Your task to perform on an android device: turn pop-ups off in chrome Image 0: 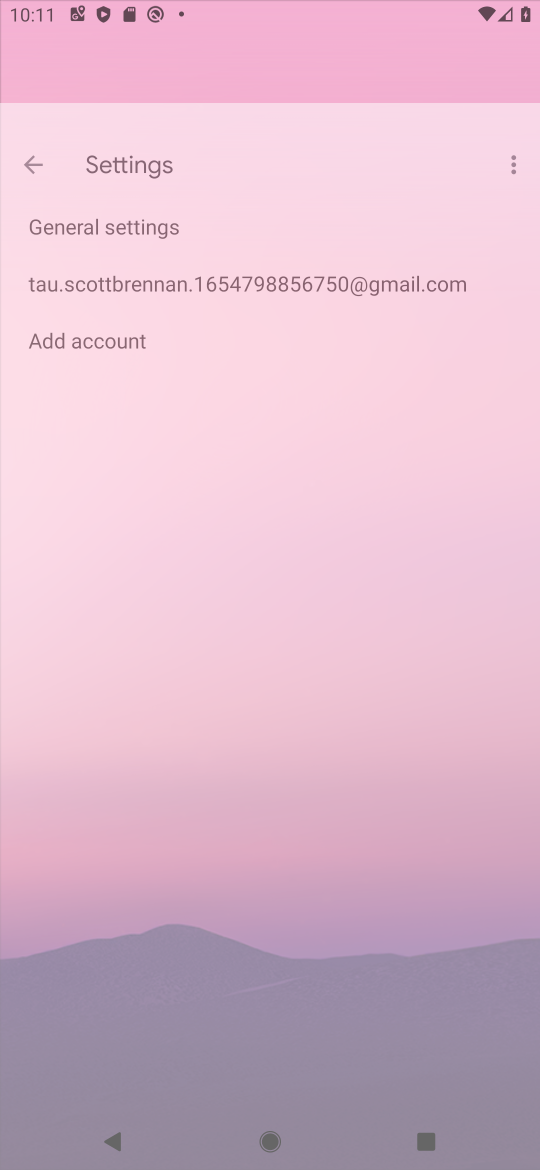
Step 0: press home button
Your task to perform on an android device: turn pop-ups off in chrome Image 1: 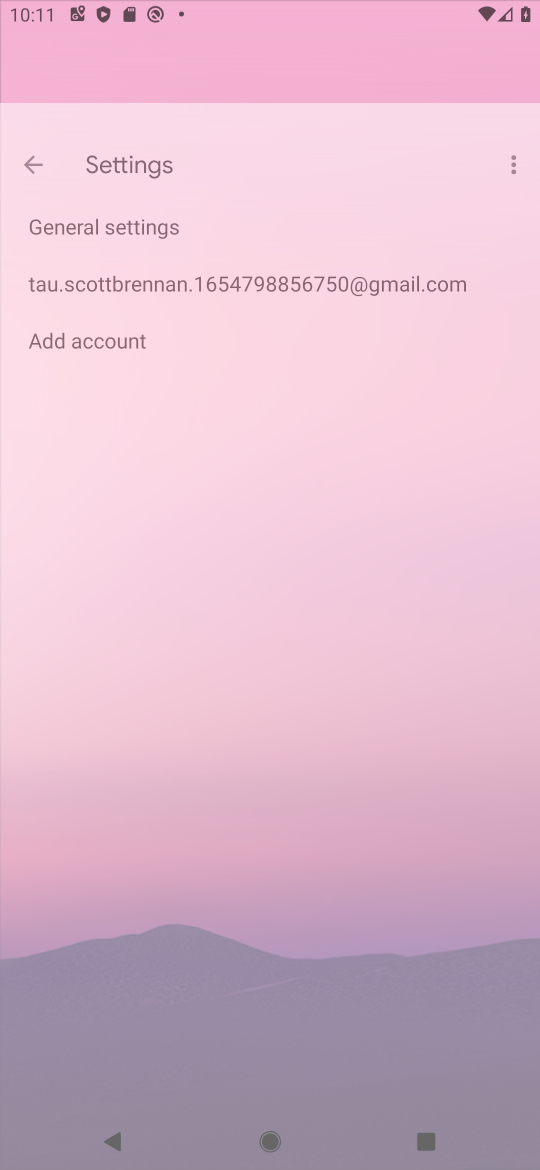
Step 1: click (307, 153)
Your task to perform on an android device: turn pop-ups off in chrome Image 2: 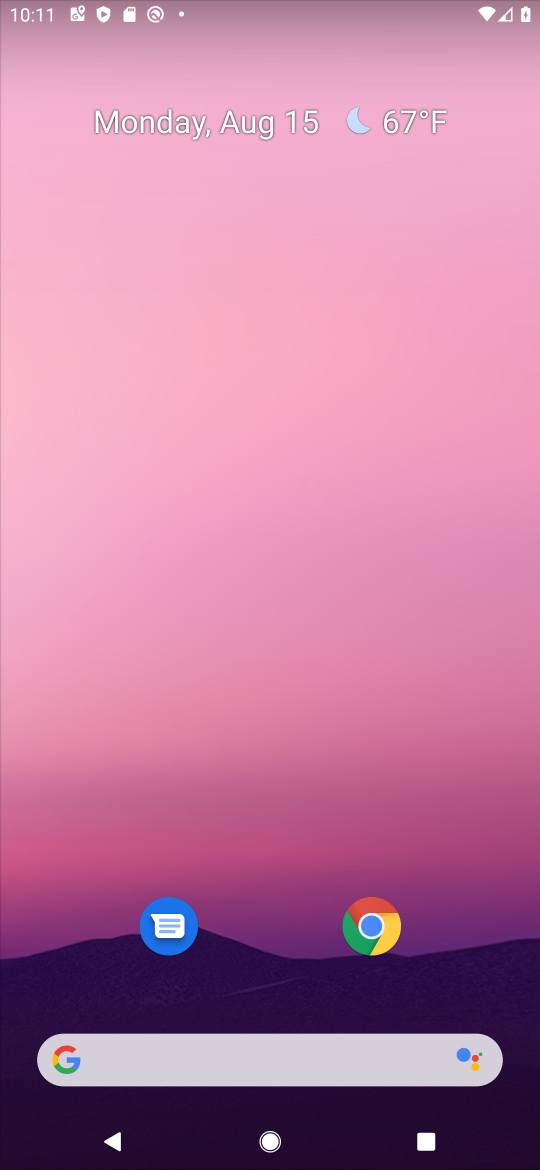
Step 2: click (373, 920)
Your task to perform on an android device: turn pop-ups off in chrome Image 3: 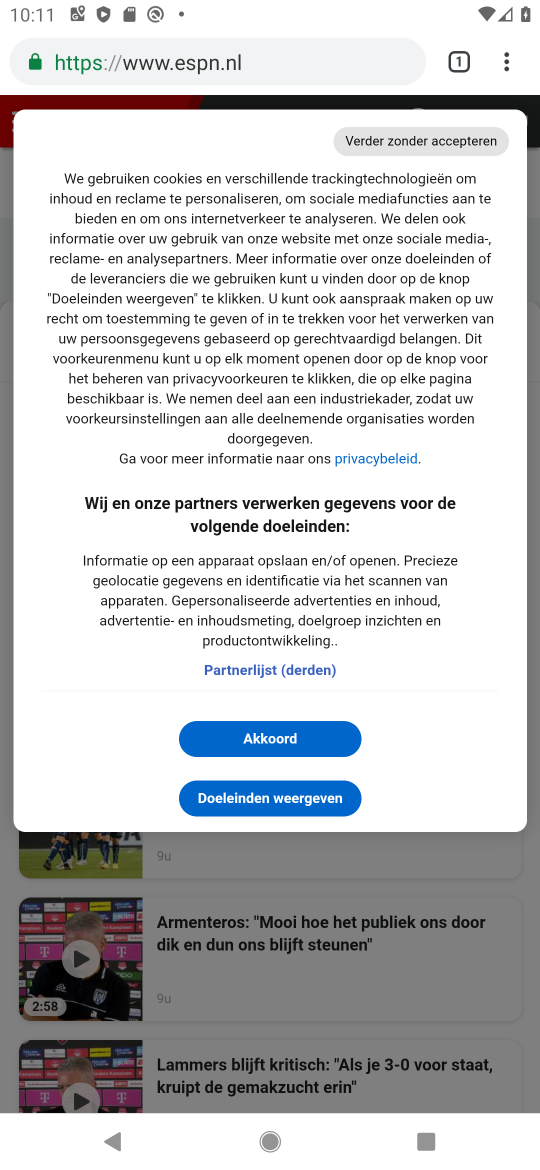
Step 3: drag from (510, 61) to (285, 815)
Your task to perform on an android device: turn pop-ups off in chrome Image 4: 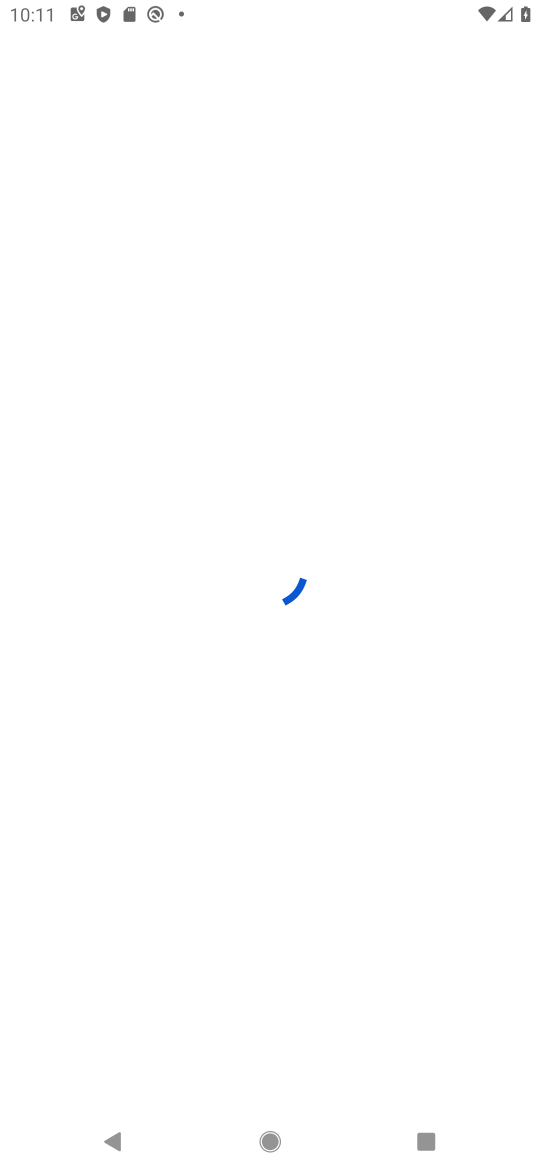
Step 4: press back button
Your task to perform on an android device: turn pop-ups off in chrome Image 5: 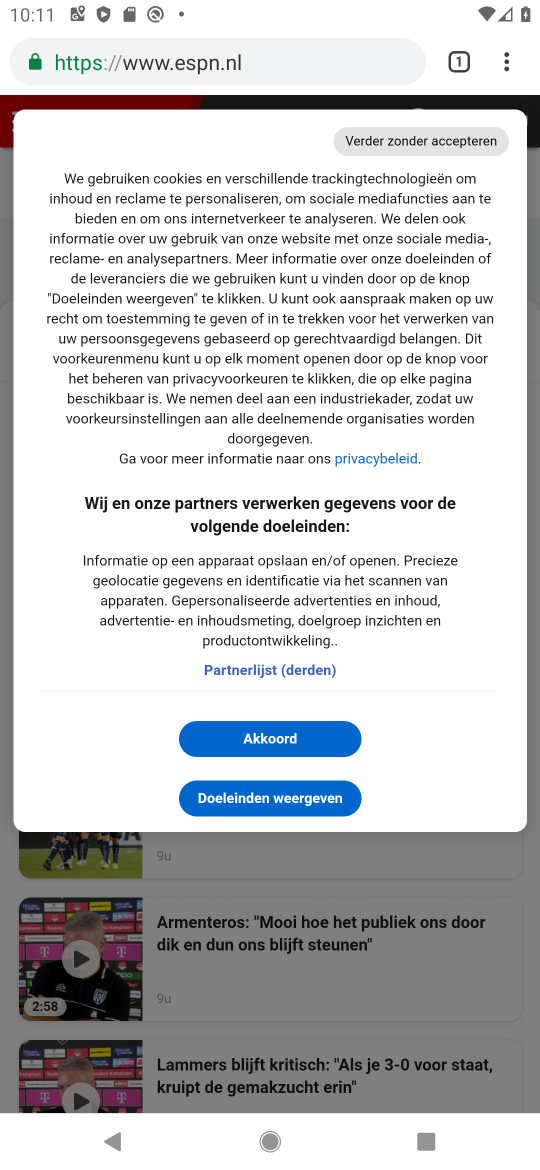
Step 5: drag from (503, 58) to (304, 746)
Your task to perform on an android device: turn pop-ups off in chrome Image 6: 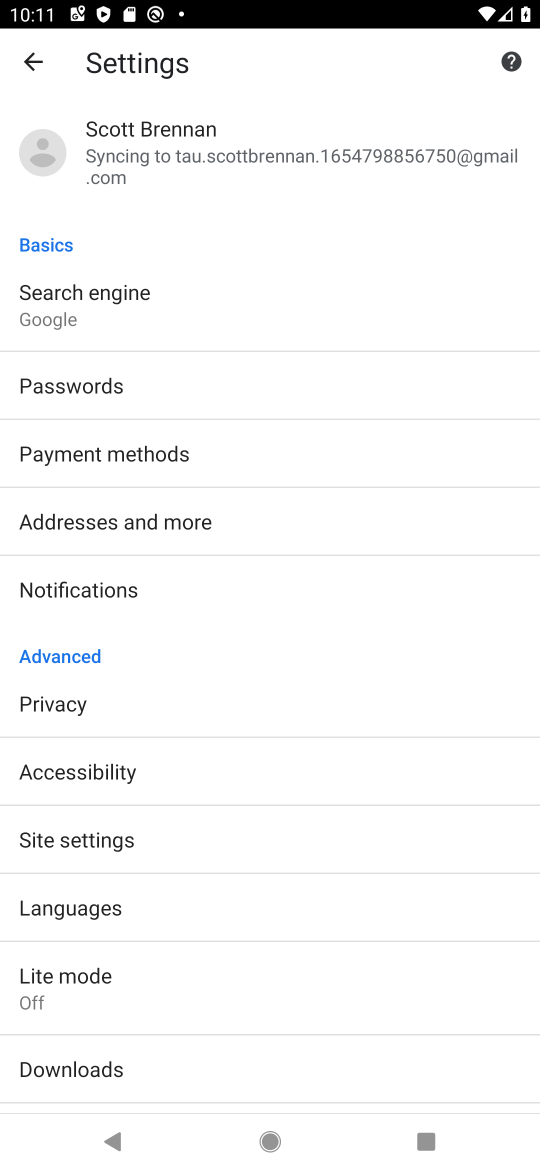
Step 6: drag from (116, 951) to (243, 584)
Your task to perform on an android device: turn pop-ups off in chrome Image 7: 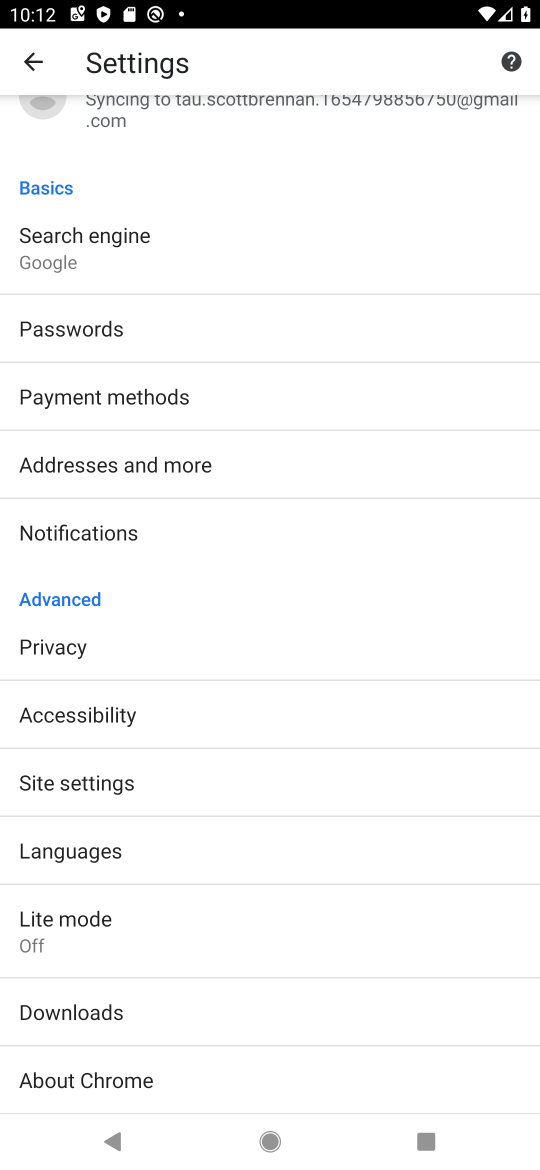
Step 7: click (85, 770)
Your task to perform on an android device: turn pop-ups off in chrome Image 8: 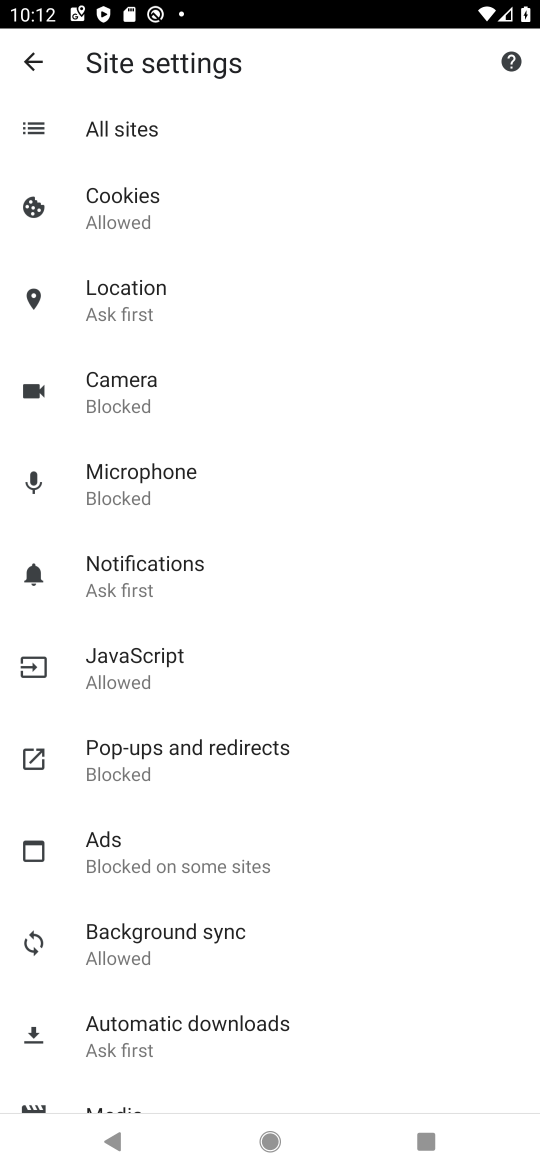
Step 8: click (123, 773)
Your task to perform on an android device: turn pop-ups off in chrome Image 9: 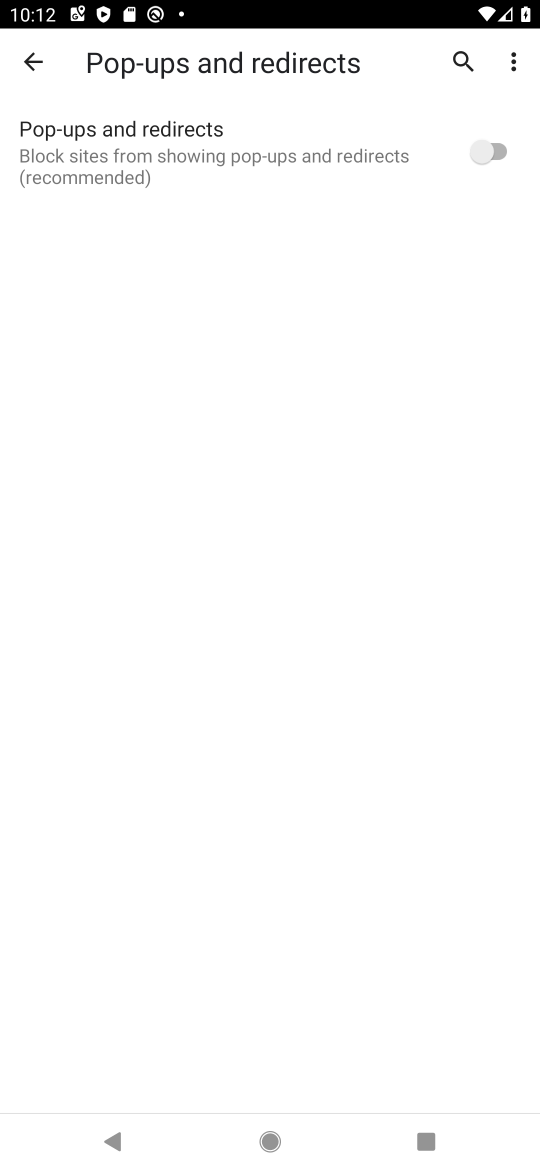
Step 9: task complete